Your task to perform on an android device: Open the calendar and show me this week's events? Image 0: 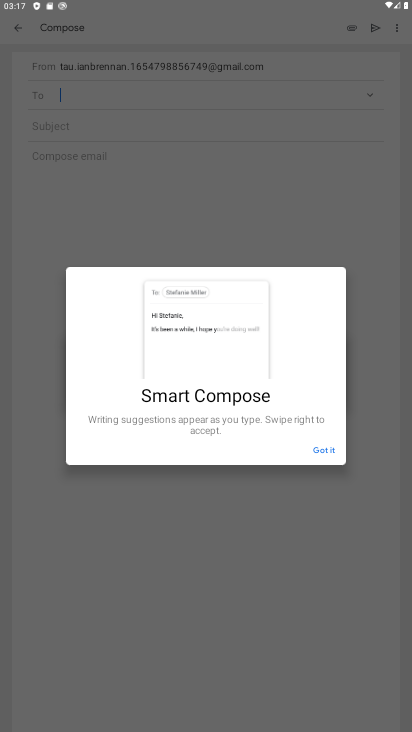
Step 0: press home button
Your task to perform on an android device: Open the calendar and show me this week's events? Image 1: 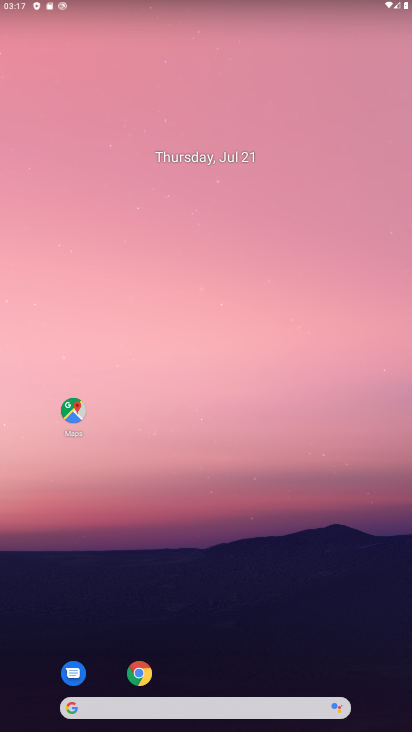
Step 1: drag from (231, 619) to (208, 154)
Your task to perform on an android device: Open the calendar and show me this week's events? Image 2: 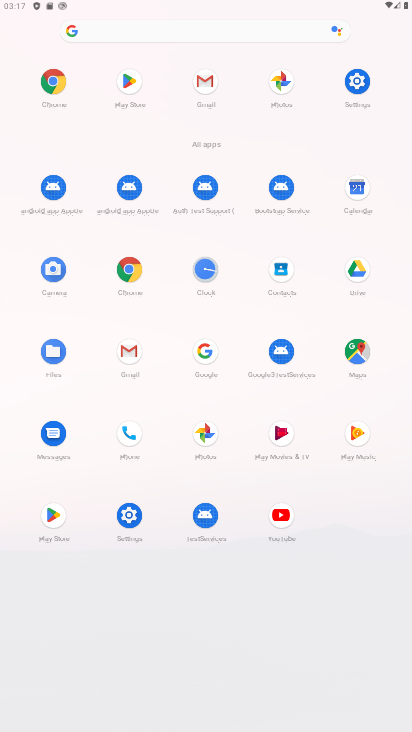
Step 2: click (355, 181)
Your task to perform on an android device: Open the calendar and show me this week's events? Image 3: 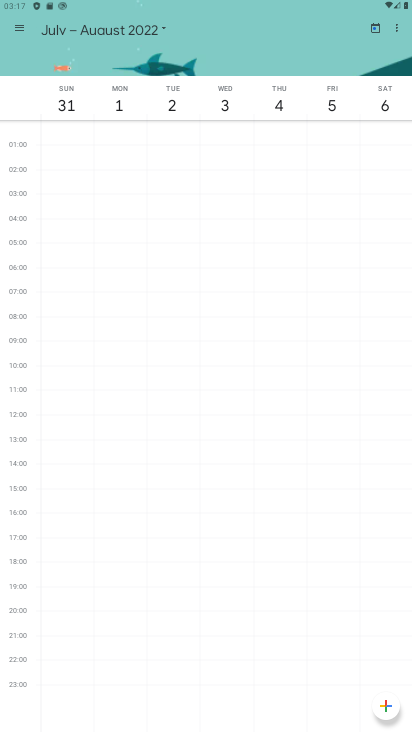
Step 3: click (105, 25)
Your task to perform on an android device: Open the calendar and show me this week's events? Image 4: 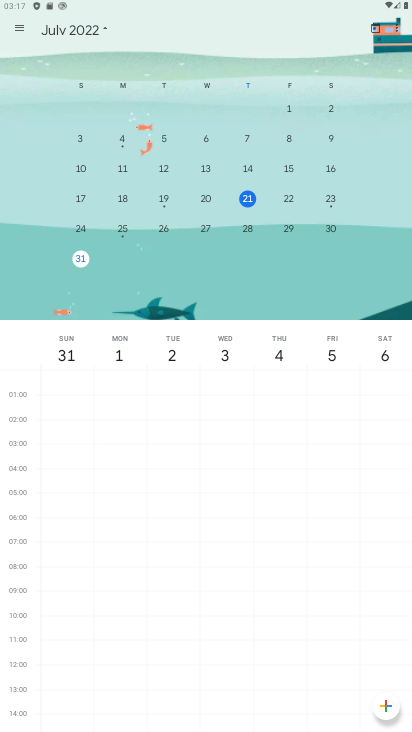
Step 4: click (246, 206)
Your task to perform on an android device: Open the calendar and show me this week's events? Image 5: 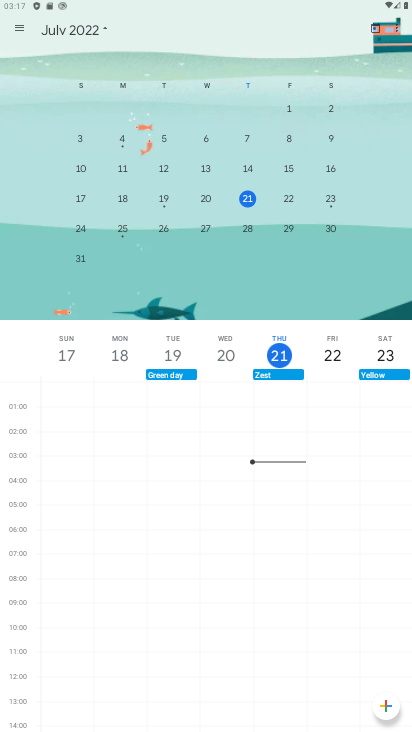
Step 5: task complete